Your task to perform on an android device: Open calendar and show me the first week of next month Image 0: 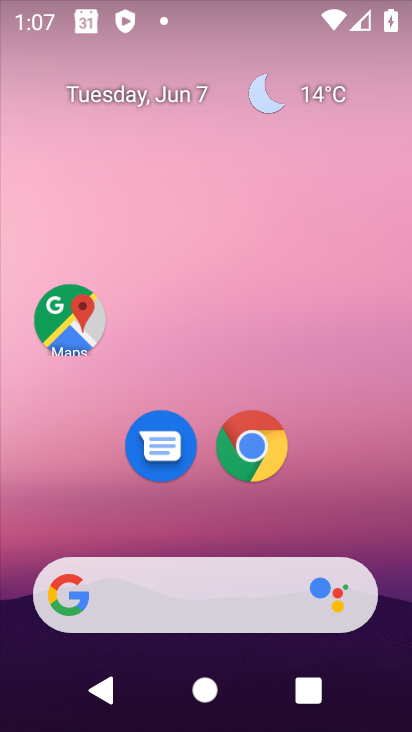
Step 0: drag from (351, 511) to (285, 7)
Your task to perform on an android device: Open calendar and show me the first week of next month Image 1: 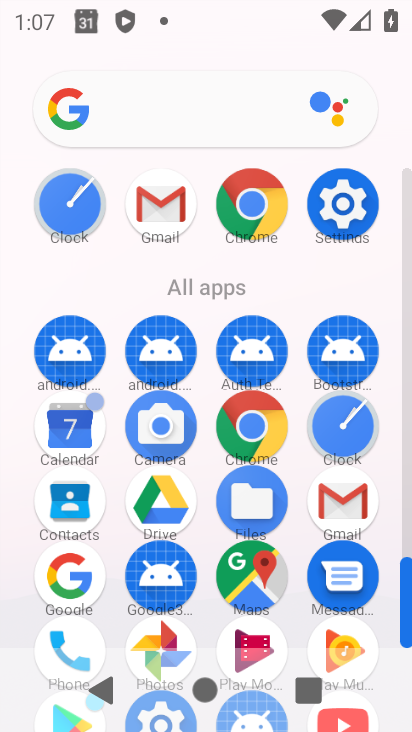
Step 1: drag from (5, 611) to (18, 255)
Your task to perform on an android device: Open calendar and show me the first week of next month Image 2: 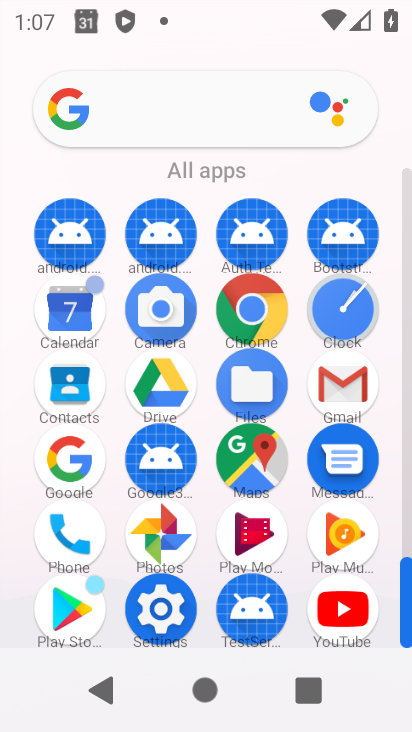
Step 2: click (71, 292)
Your task to perform on an android device: Open calendar and show me the first week of next month Image 3: 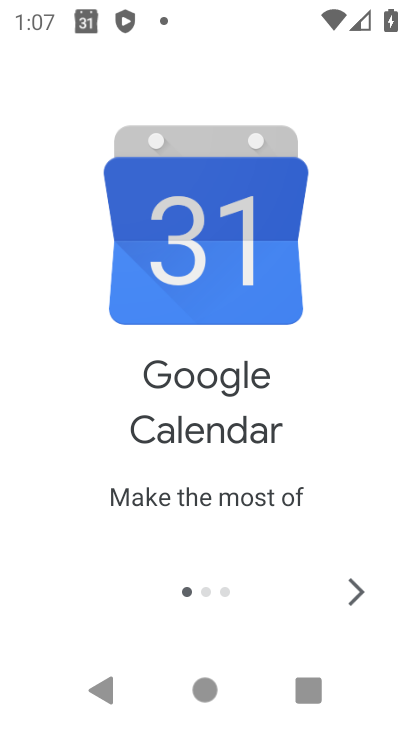
Step 3: click (355, 583)
Your task to perform on an android device: Open calendar and show me the first week of next month Image 4: 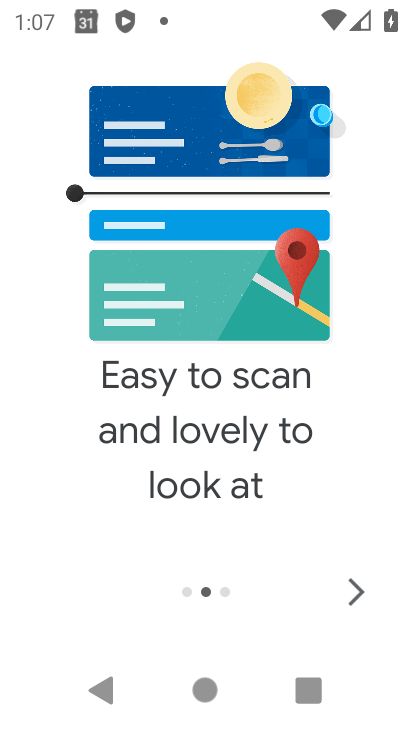
Step 4: click (373, 591)
Your task to perform on an android device: Open calendar and show me the first week of next month Image 5: 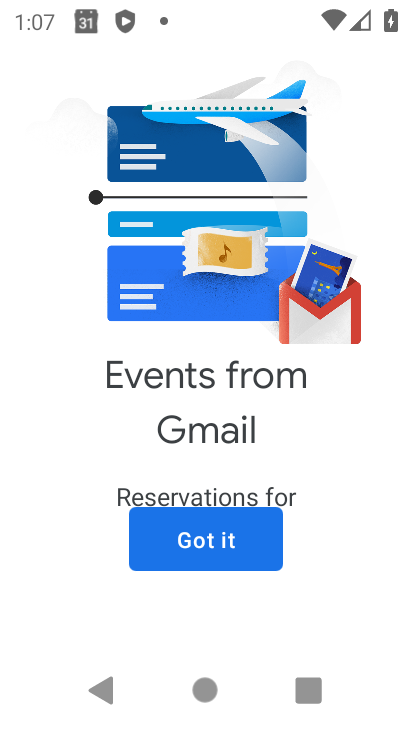
Step 5: click (243, 552)
Your task to perform on an android device: Open calendar and show me the first week of next month Image 6: 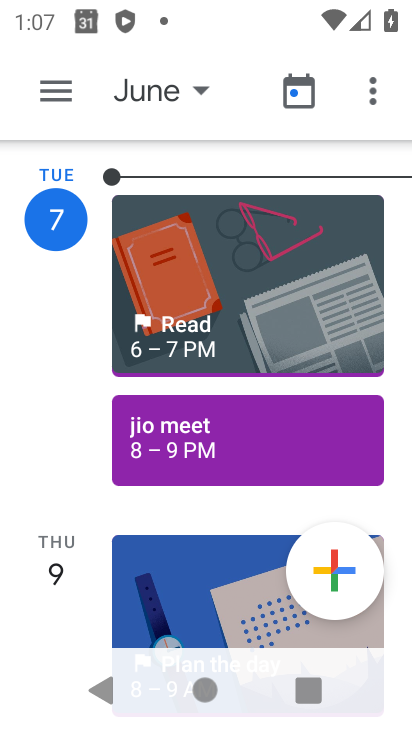
Step 6: click (159, 83)
Your task to perform on an android device: Open calendar and show me the first week of next month Image 7: 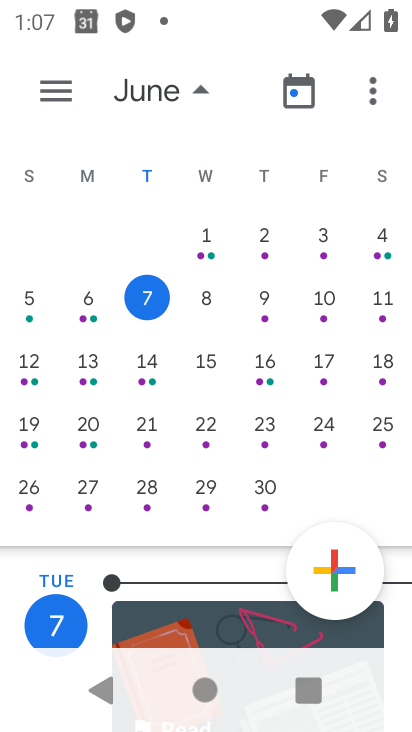
Step 7: drag from (390, 376) to (4, 245)
Your task to perform on an android device: Open calendar and show me the first week of next month Image 8: 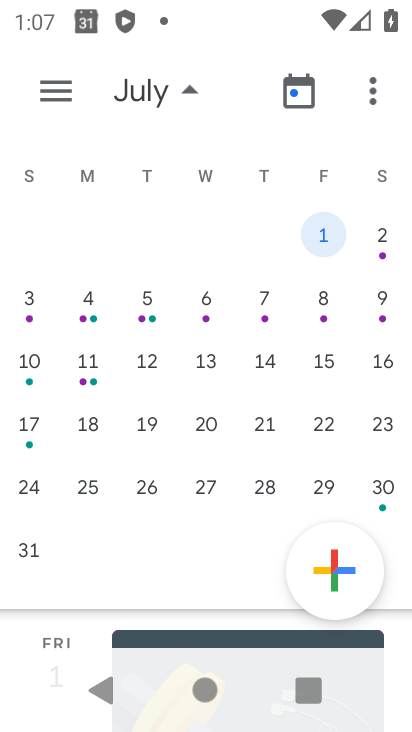
Step 8: click (27, 304)
Your task to perform on an android device: Open calendar and show me the first week of next month Image 9: 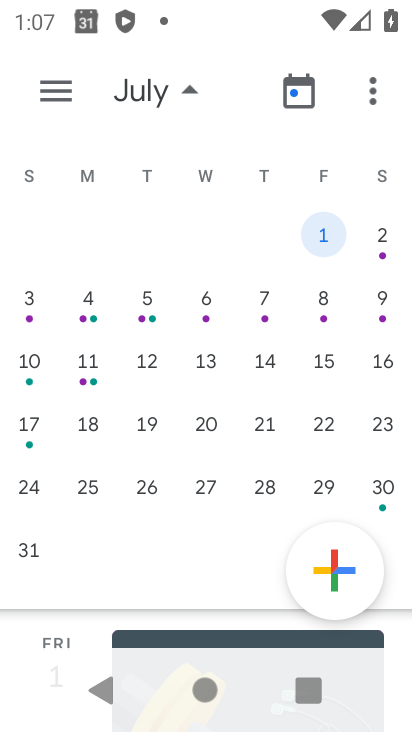
Step 9: click (30, 294)
Your task to perform on an android device: Open calendar and show me the first week of next month Image 10: 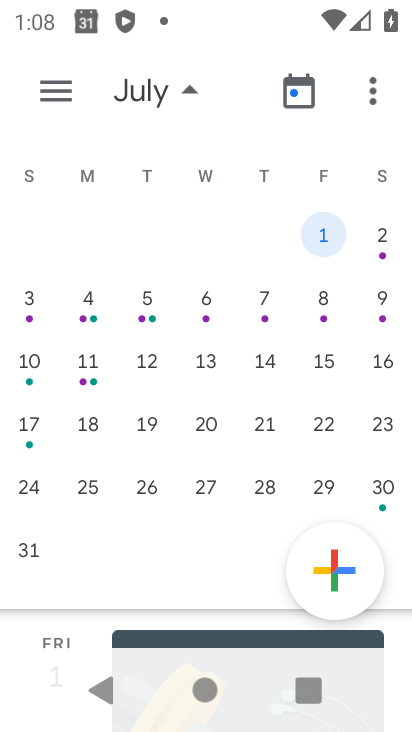
Step 10: click (39, 296)
Your task to perform on an android device: Open calendar and show me the first week of next month Image 11: 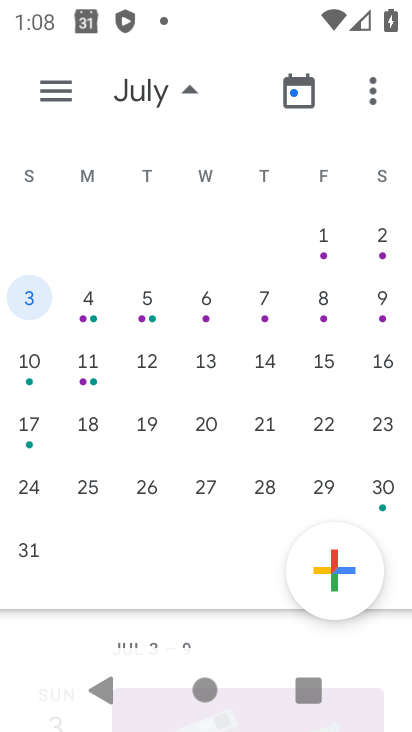
Step 11: click (53, 87)
Your task to perform on an android device: Open calendar and show me the first week of next month Image 12: 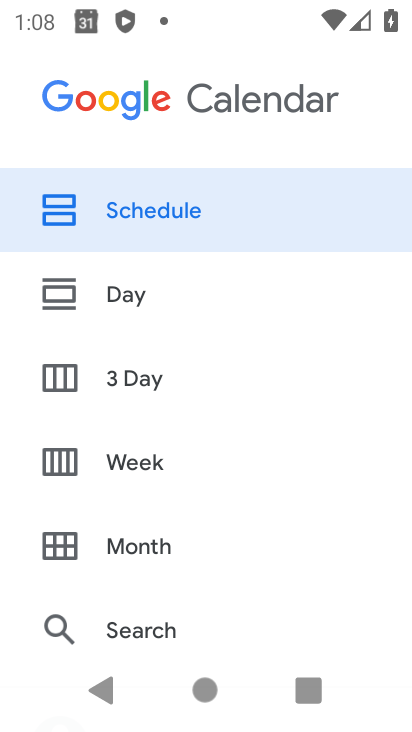
Step 12: click (153, 465)
Your task to perform on an android device: Open calendar and show me the first week of next month Image 13: 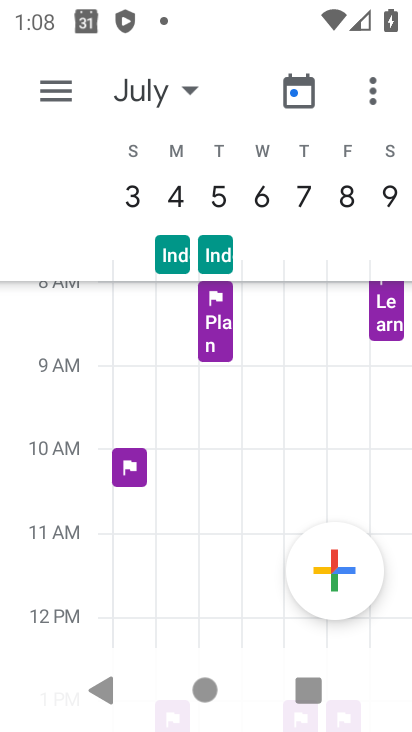
Step 13: task complete